Your task to perform on an android device: stop showing notifications on the lock screen Image 0: 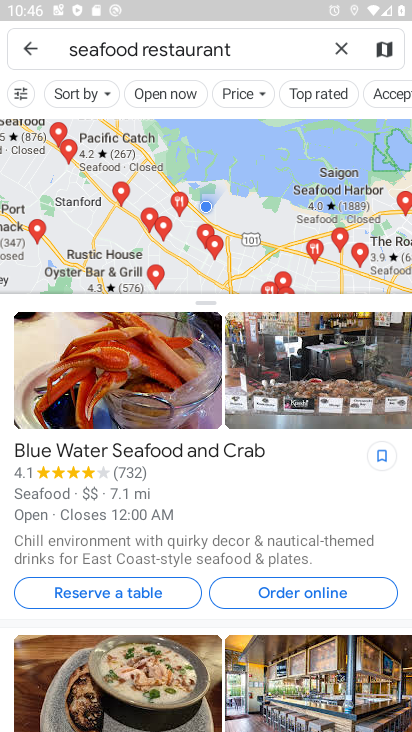
Step 0: press home button
Your task to perform on an android device: stop showing notifications on the lock screen Image 1: 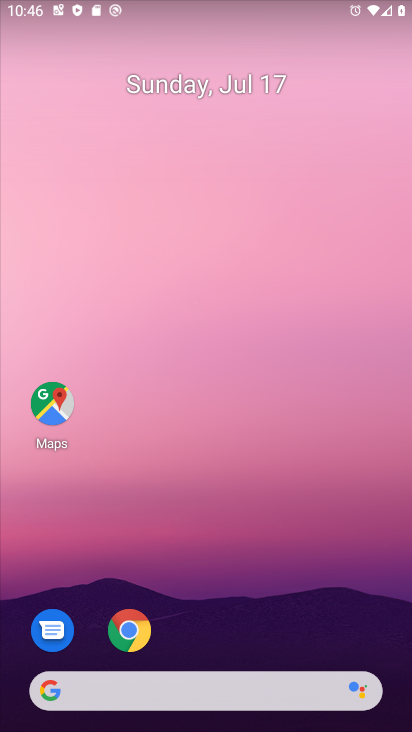
Step 1: drag from (345, 626) to (385, 99)
Your task to perform on an android device: stop showing notifications on the lock screen Image 2: 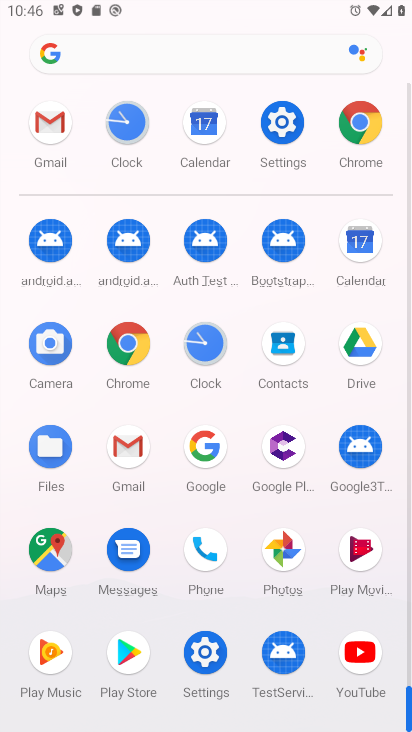
Step 2: click (287, 127)
Your task to perform on an android device: stop showing notifications on the lock screen Image 3: 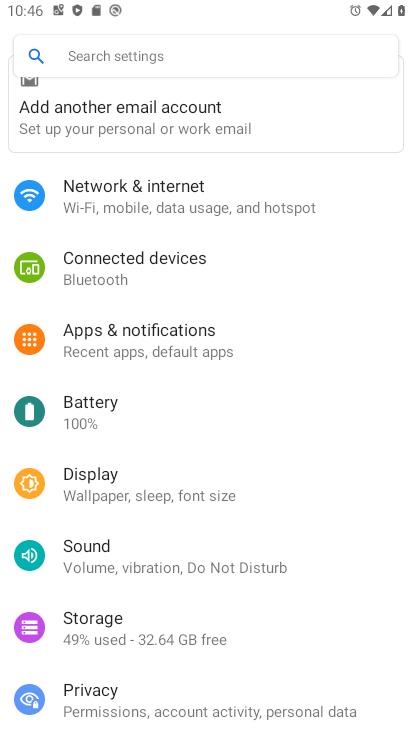
Step 3: drag from (342, 387) to (354, 297)
Your task to perform on an android device: stop showing notifications on the lock screen Image 4: 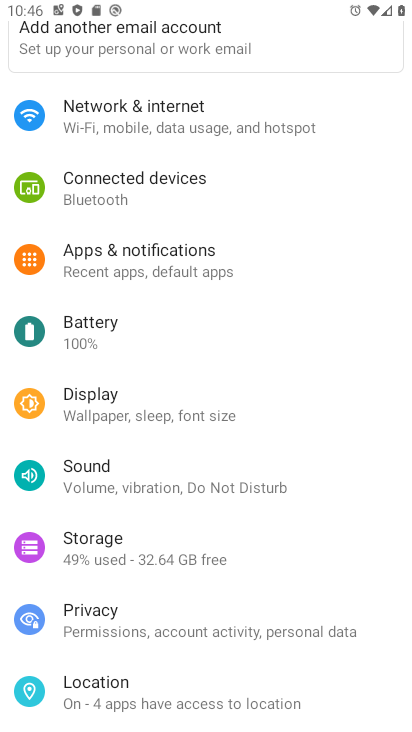
Step 4: drag from (338, 400) to (351, 328)
Your task to perform on an android device: stop showing notifications on the lock screen Image 5: 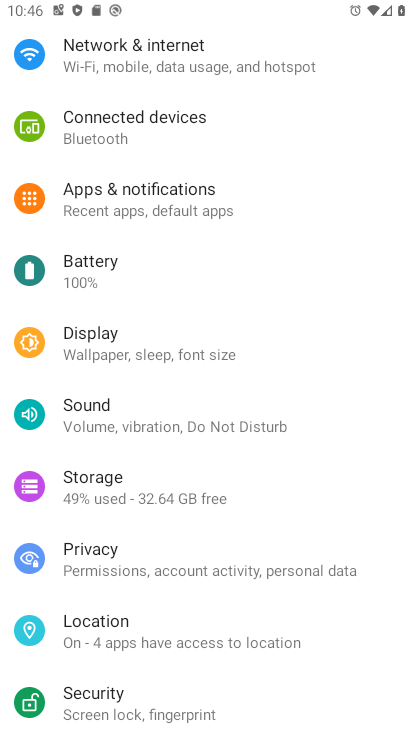
Step 5: drag from (337, 462) to (359, 361)
Your task to perform on an android device: stop showing notifications on the lock screen Image 6: 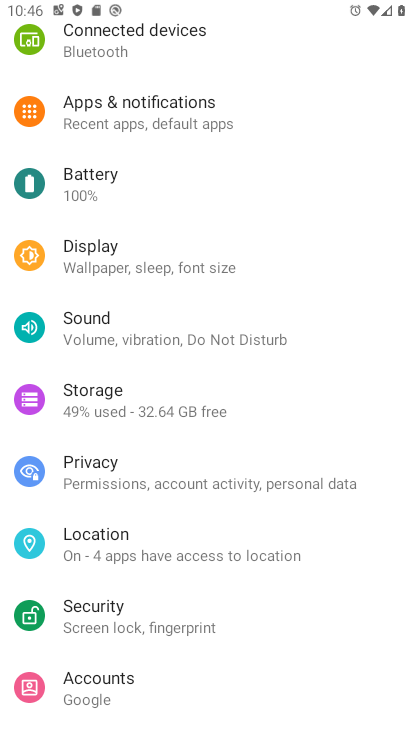
Step 6: drag from (362, 543) to (380, 438)
Your task to perform on an android device: stop showing notifications on the lock screen Image 7: 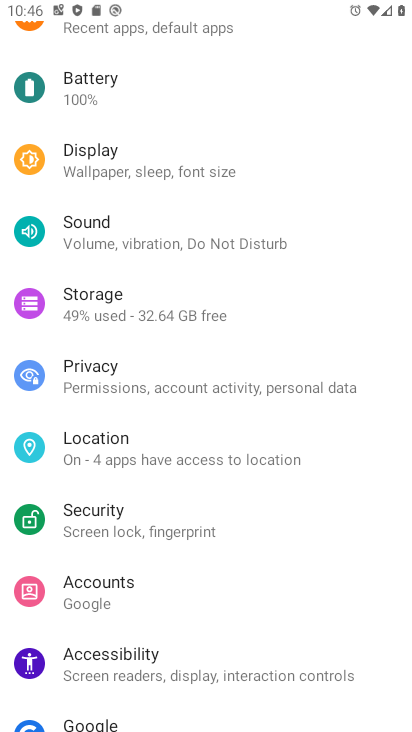
Step 7: drag from (368, 525) to (369, 383)
Your task to perform on an android device: stop showing notifications on the lock screen Image 8: 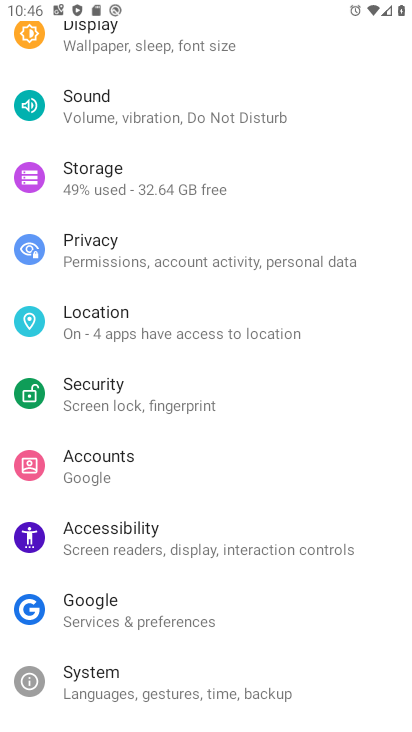
Step 8: drag from (344, 503) to (359, 367)
Your task to perform on an android device: stop showing notifications on the lock screen Image 9: 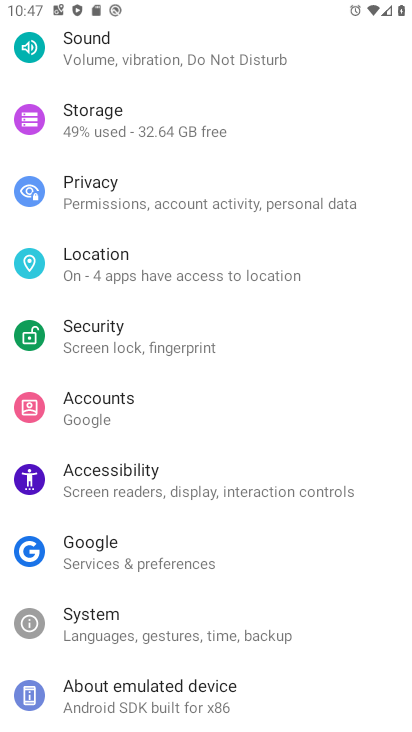
Step 9: drag from (349, 544) to (366, 430)
Your task to perform on an android device: stop showing notifications on the lock screen Image 10: 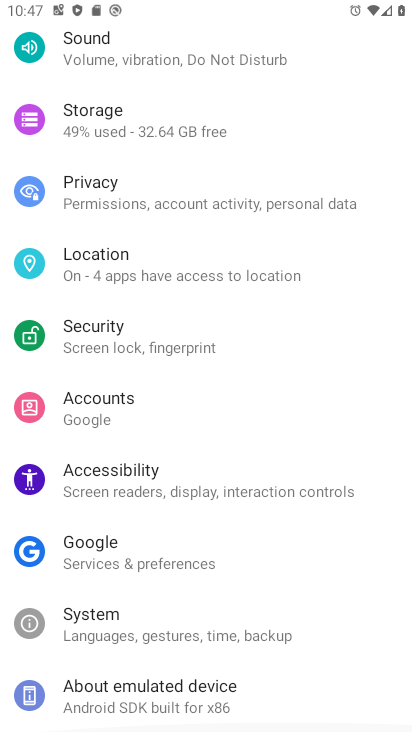
Step 10: drag from (359, 304) to (358, 400)
Your task to perform on an android device: stop showing notifications on the lock screen Image 11: 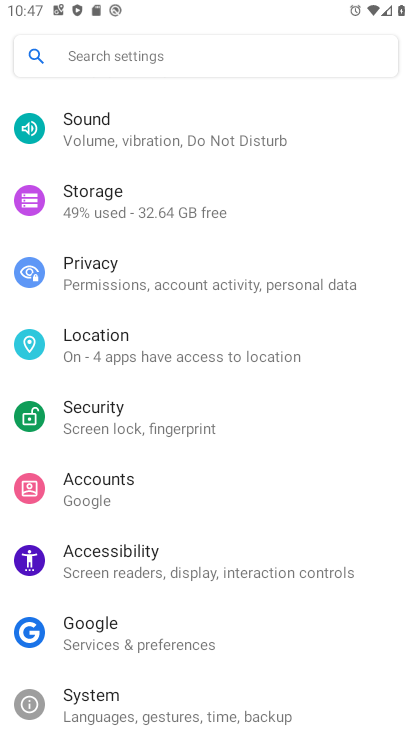
Step 11: drag from (380, 209) to (374, 342)
Your task to perform on an android device: stop showing notifications on the lock screen Image 12: 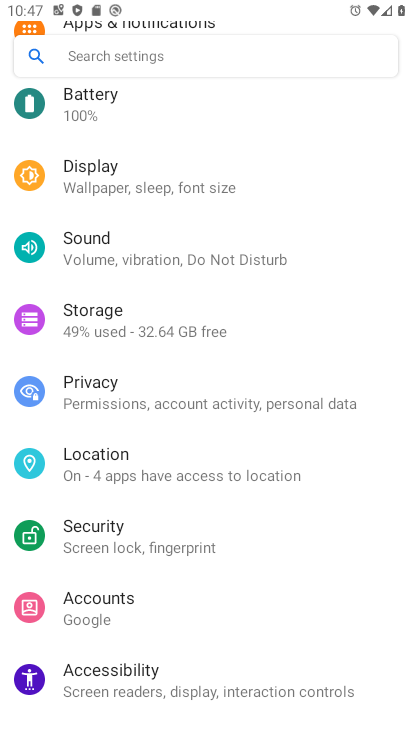
Step 12: drag from (360, 199) to (359, 309)
Your task to perform on an android device: stop showing notifications on the lock screen Image 13: 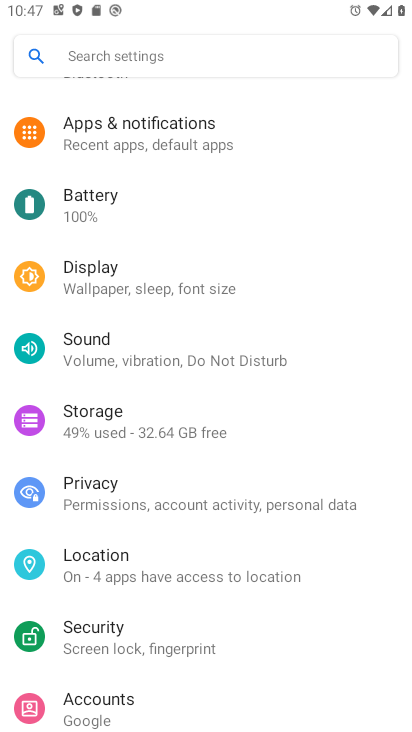
Step 13: drag from (361, 200) to (361, 346)
Your task to perform on an android device: stop showing notifications on the lock screen Image 14: 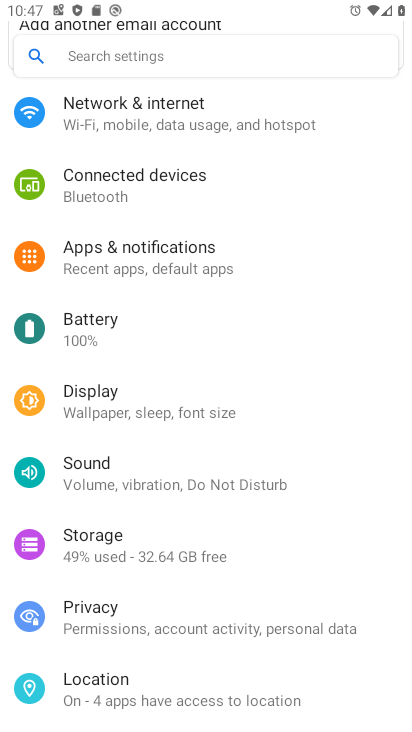
Step 14: drag from (344, 172) to (342, 416)
Your task to perform on an android device: stop showing notifications on the lock screen Image 15: 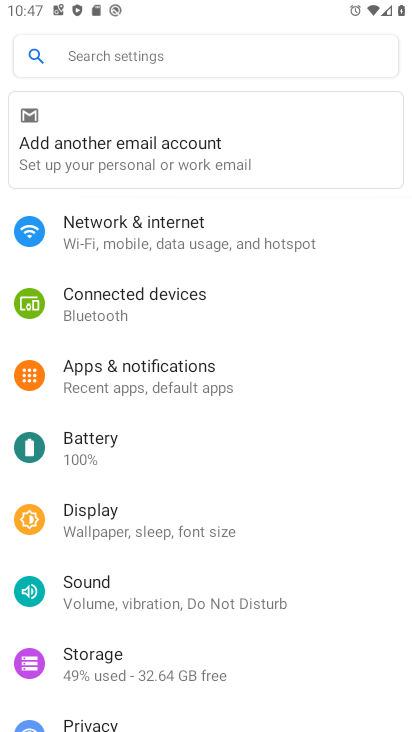
Step 15: click (195, 376)
Your task to perform on an android device: stop showing notifications on the lock screen Image 16: 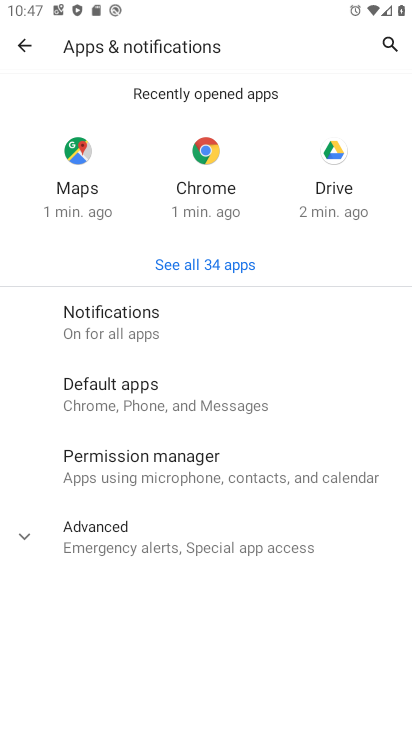
Step 16: click (174, 324)
Your task to perform on an android device: stop showing notifications on the lock screen Image 17: 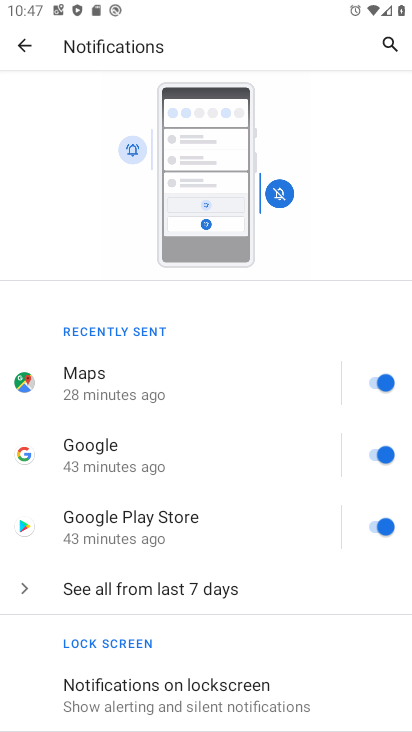
Step 17: drag from (288, 492) to (302, 341)
Your task to perform on an android device: stop showing notifications on the lock screen Image 18: 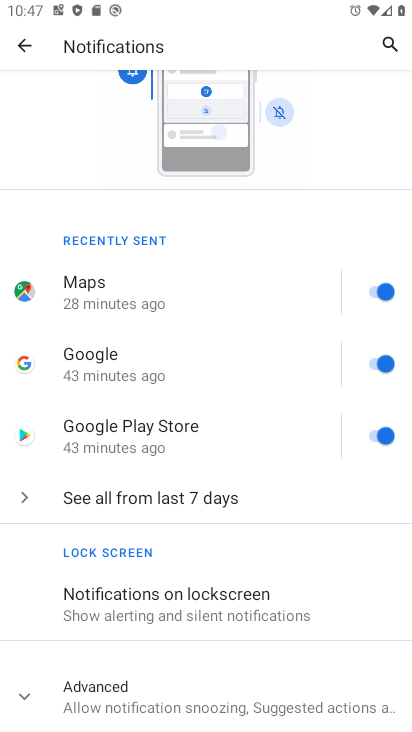
Step 18: click (286, 601)
Your task to perform on an android device: stop showing notifications on the lock screen Image 19: 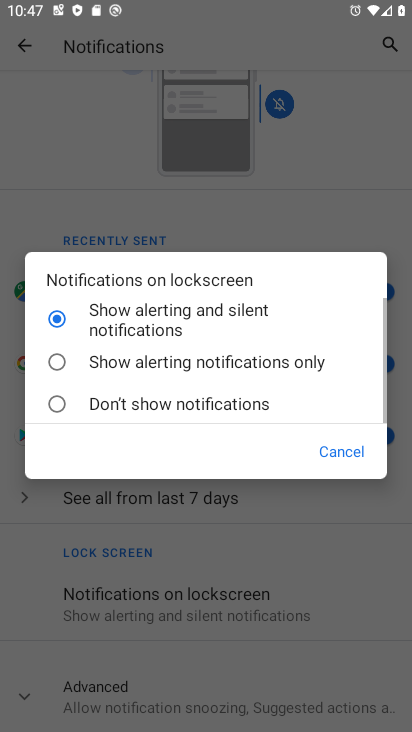
Step 19: click (120, 397)
Your task to perform on an android device: stop showing notifications on the lock screen Image 20: 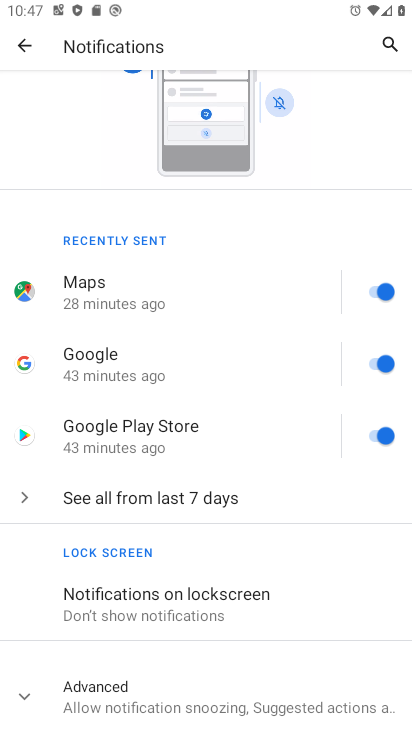
Step 20: task complete